Your task to perform on an android device: Open Google Maps Image 0: 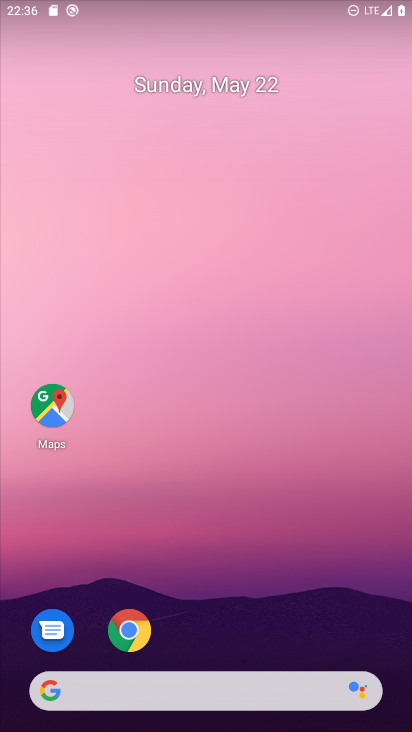
Step 0: press home button
Your task to perform on an android device: Open Google Maps Image 1: 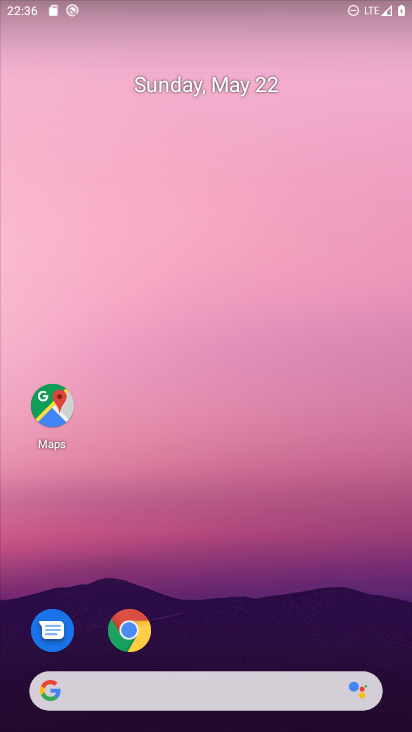
Step 1: click (50, 412)
Your task to perform on an android device: Open Google Maps Image 2: 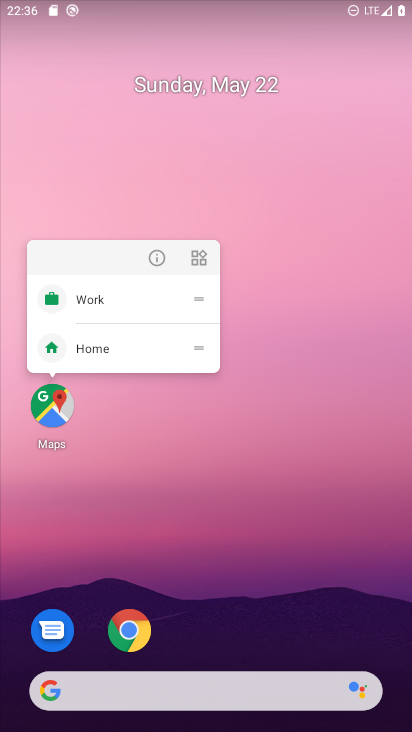
Step 2: click (51, 420)
Your task to perform on an android device: Open Google Maps Image 3: 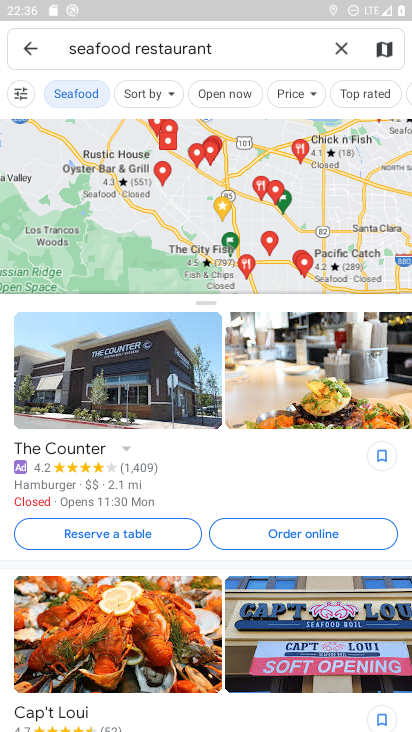
Step 3: click (24, 44)
Your task to perform on an android device: Open Google Maps Image 4: 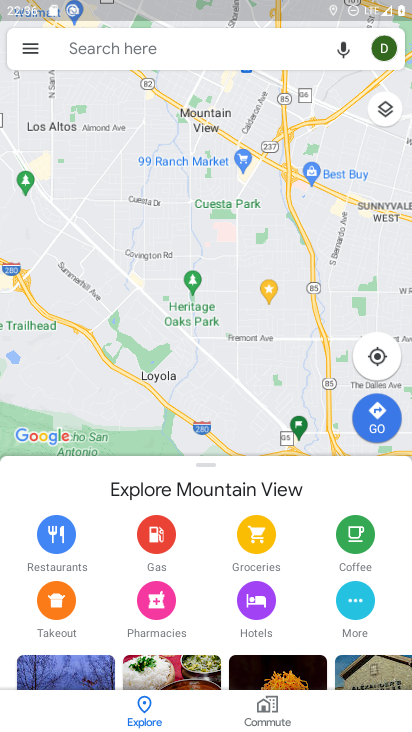
Step 4: task complete